Your task to perform on an android device: turn off notifications settings in the gmail app Image 0: 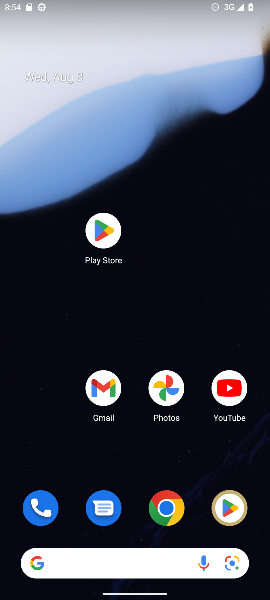
Step 0: drag from (152, 541) to (135, 13)
Your task to perform on an android device: turn off notifications settings in the gmail app Image 1: 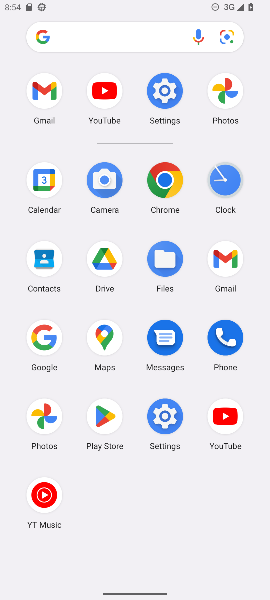
Step 1: click (231, 265)
Your task to perform on an android device: turn off notifications settings in the gmail app Image 2: 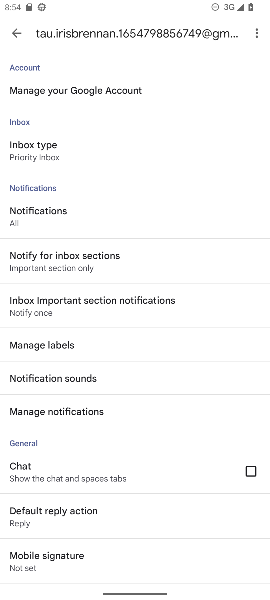
Step 2: click (23, 31)
Your task to perform on an android device: turn off notifications settings in the gmail app Image 3: 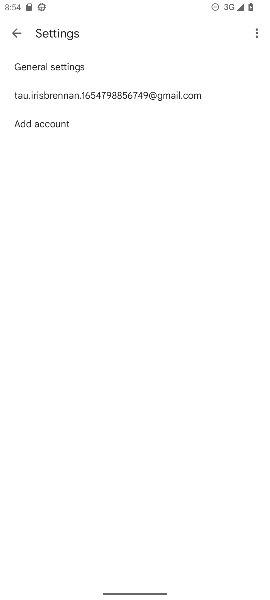
Step 3: click (21, 58)
Your task to perform on an android device: turn off notifications settings in the gmail app Image 4: 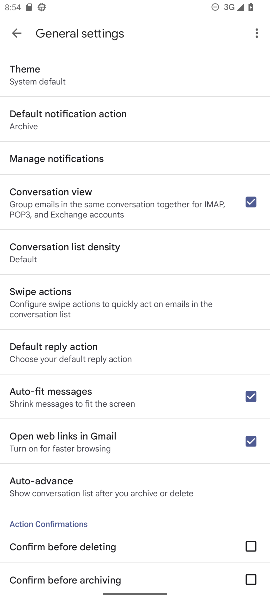
Step 4: click (40, 158)
Your task to perform on an android device: turn off notifications settings in the gmail app Image 5: 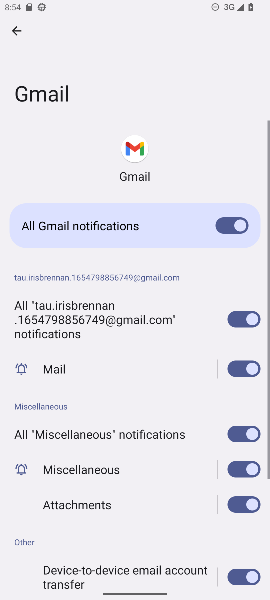
Step 5: click (214, 222)
Your task to perform on an android device: turn off notifications settings in the gmail app Image 6: 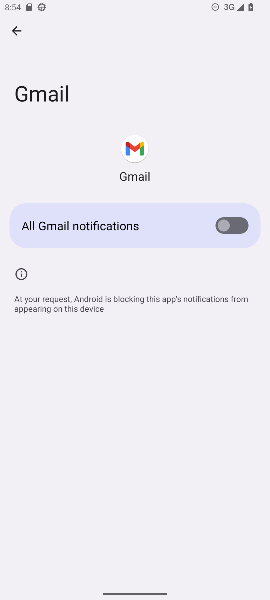
Step 6: task complete